Your task to perform on an android device: Open Chrome and go to the settings page Image 0: 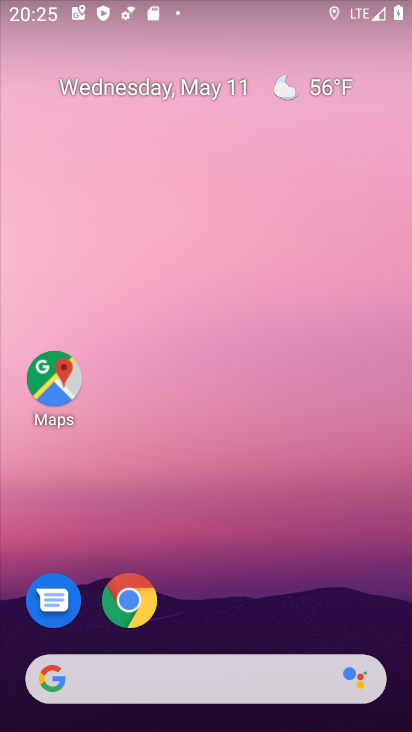
Step 0: click (126, 599)
Your task to perform on an android device: Open Chrome and go to the settings page Image 1: 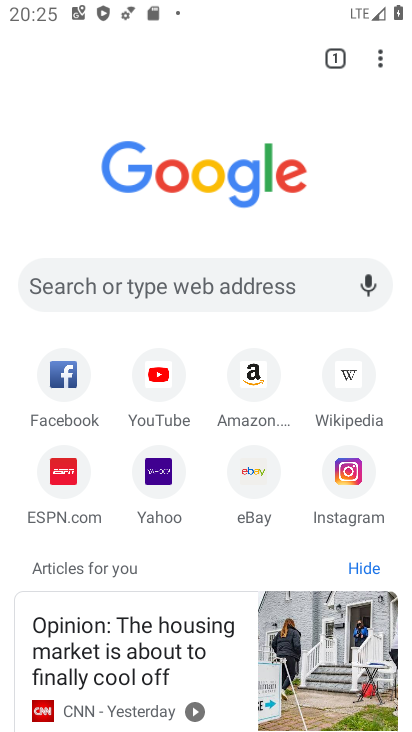
Step 1: click (382, 58)
Your task to perform on an android device: Open Chrome and go to the settings page Image 2: 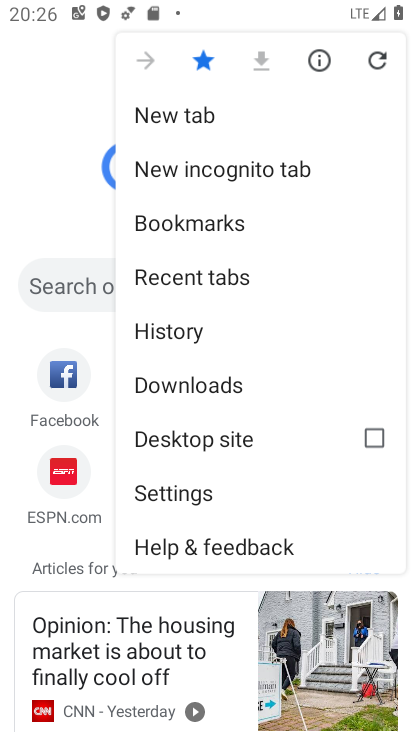
Step 2: click (199, 492)
Your task to perform on an android device: Open Chrome and go to the settings page Image 3: 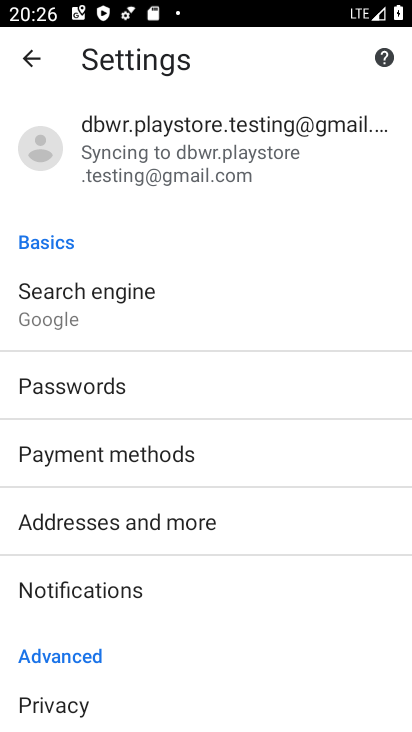
Step 3: task complete